Your task to perform on an android device: change the clock display to digital Image 0: 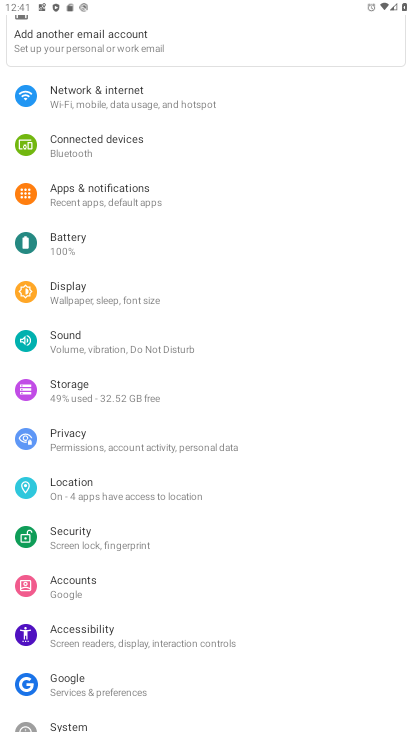
Step 0: press home button
Your task to perform on an android device: change the clock display to digital Image 1: 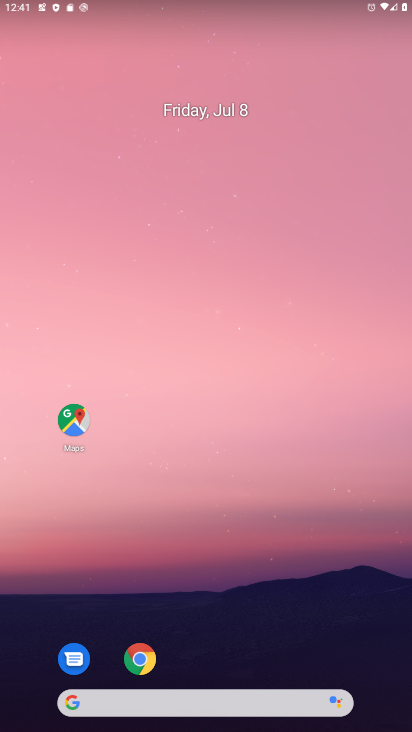
Step 1: drag from (205, 554) to (166, 77)
Your task to perform on an android device: change the clock display to digital Image 2: 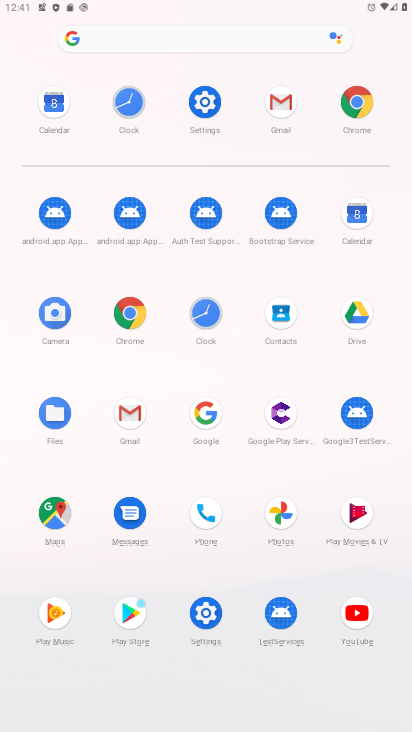
Step 2: click (202, 311)
Your task to perform on an android device: change the clock display to digital Image 3: 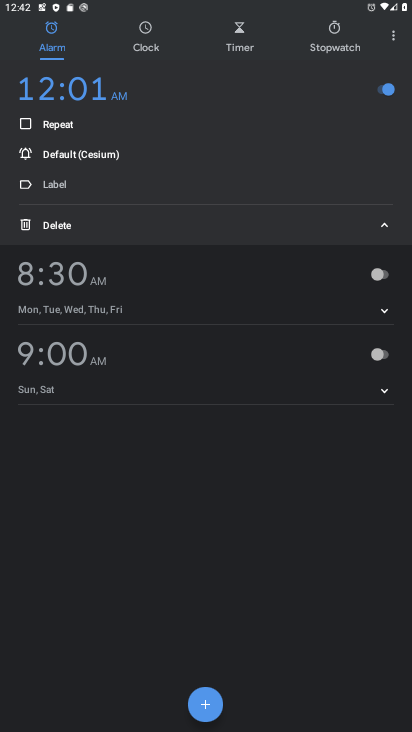
Step 3: click (395, 41)
Your task to perform on an android device: change the clock display to digital Image 4: 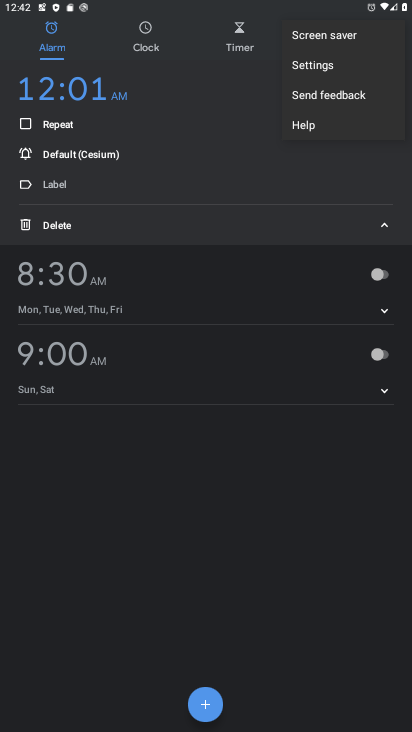
Step 4: click (317, 68)
Your task to perform on an android device: change the clock display to digital Image 5: 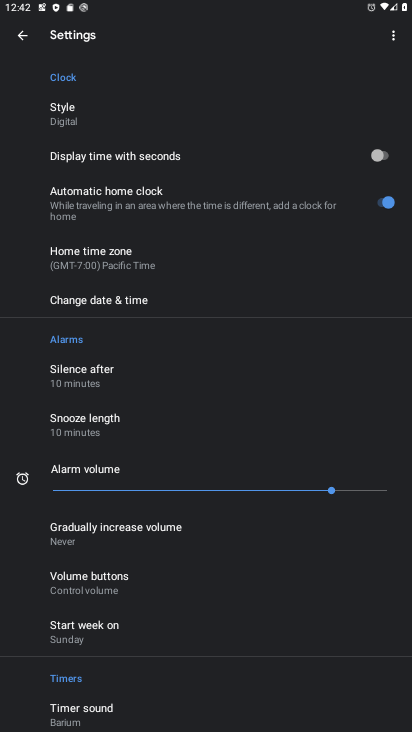
Step 5: task complete